Your task to perform on an android device: What is the news today? Image 0: 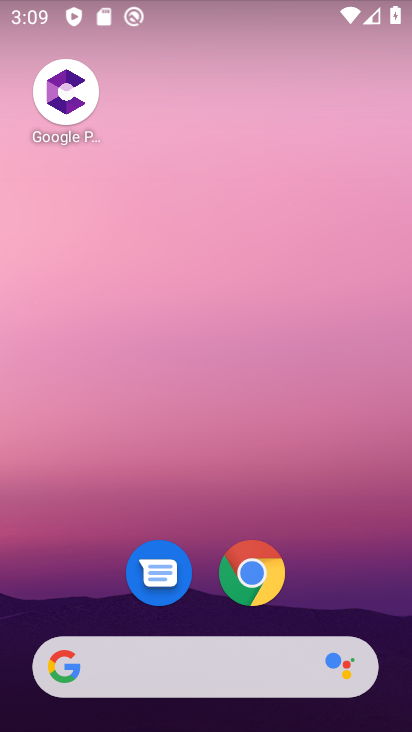
Step 0: drag from (1, 319) to (339, 342)
Your task to perform on an android device: What is the news today? Image 1: 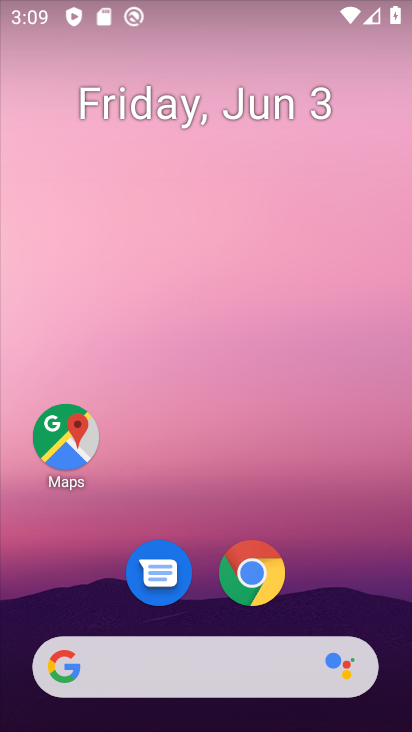
Step 1: task complete